Your task to perform on an android device: Open the calendar app, open the side menu, and click the "Day" option Image 0: 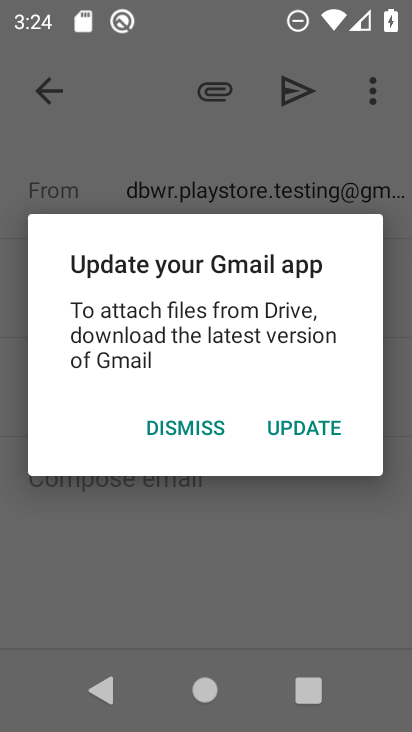
Step 0: press home button
Your task to perform on an android device: Open the calendar app, open the side menu, and click the "Day" option Image 1: 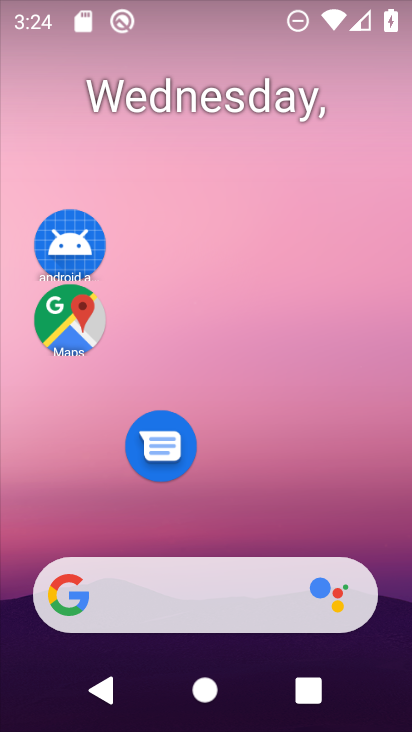
Step 1: drag from (286, 502) to (252, 71)
Your task to perform on an android device: Open the calendar app, open the side menu, and click the "Day" option Image 2: 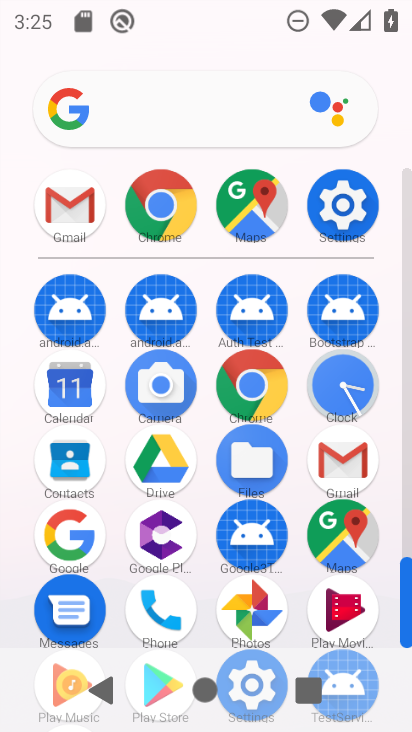
Step 2: click (54, 401)
Your task to perform on an android device: Open the calendar app, open the side menu, and click the "Day" option Image 3: 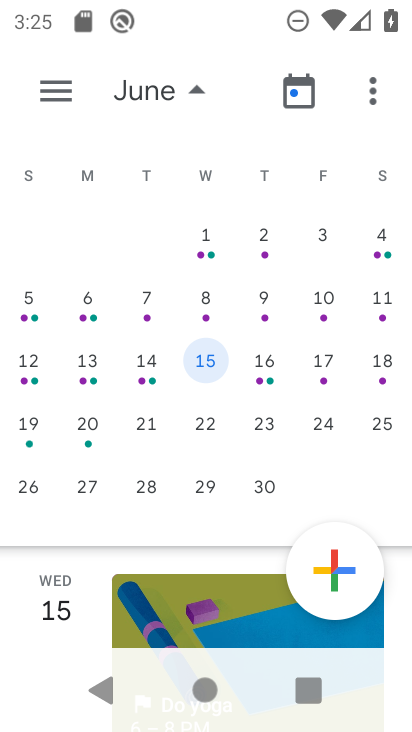
Step 3: click (47, 84)
Your task to perform on an android device: Open the calendar app, open the side menu, and click the "Day" option Image 4: 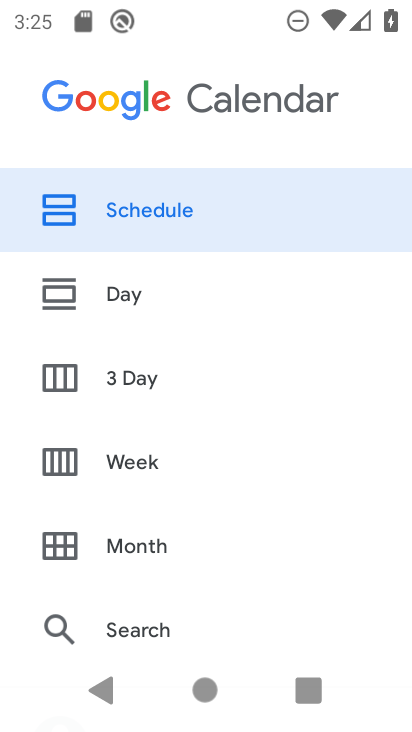
Step 4: click (136, 321)
Your task to perform on an android device: Open the calendar app, open the side menu, and click the "Day" option Image 5: 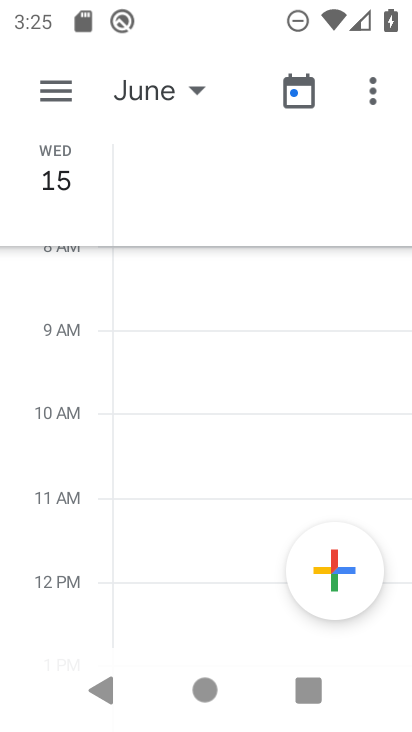
Step 5: task complete